Your task to perform on an android device: Go to Yahoo.com Image 0: 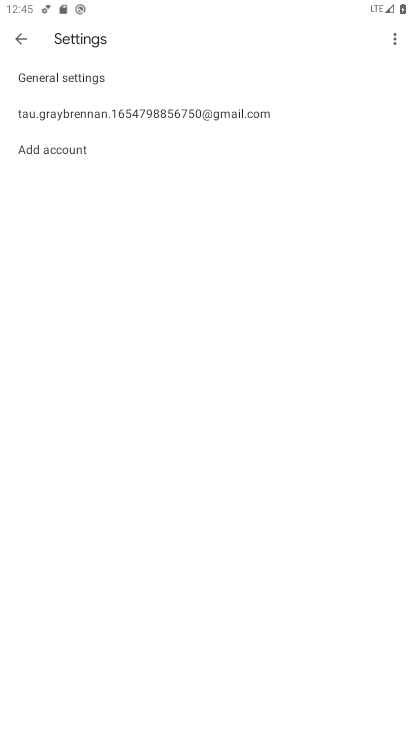
Step 0: press home button
Your task to perform on an android device: Go to Yahoo.com Image 1: 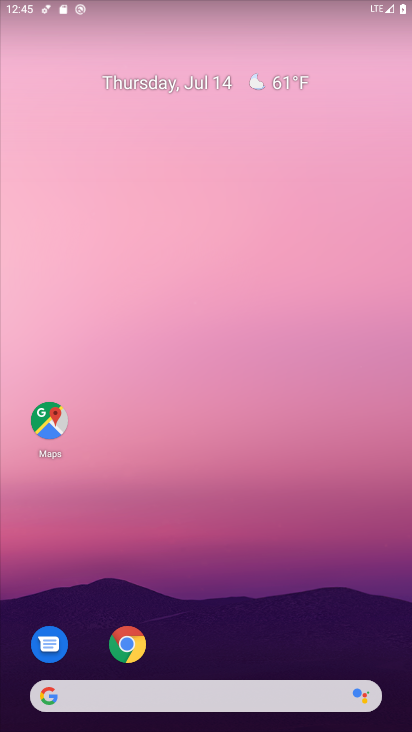
Step 1: click (137, 653)
Your task to perform on an android device: Go to Yahoo.com Image 2: 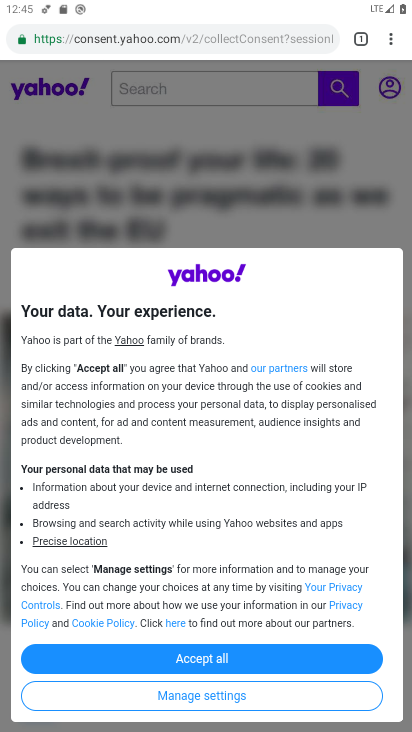
Step 2: task complete